Your task to perform on an android device: move a message to another label in the gmail app Image 0: 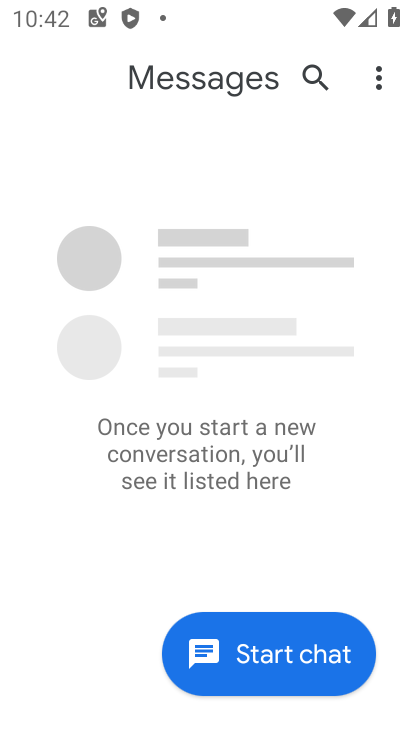
Step 0: press home button
Your task to perform on an android device: move a message to another label in the gmail app Image 1: 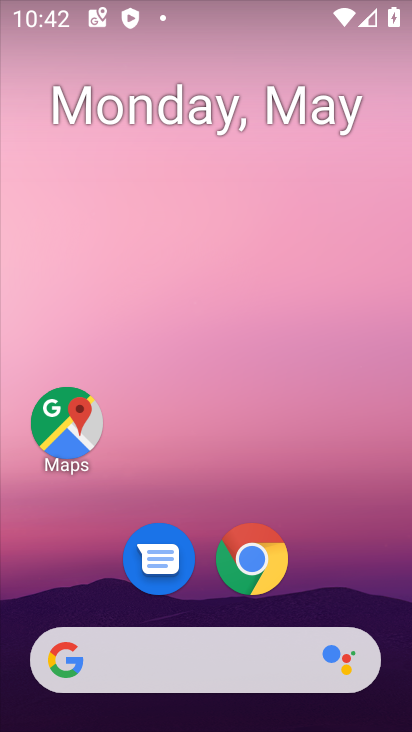
Step 1: drag from (327, 578) to (336, 3)
Your task to perform on an android device: move a message to another label in the gmail app Image 2: 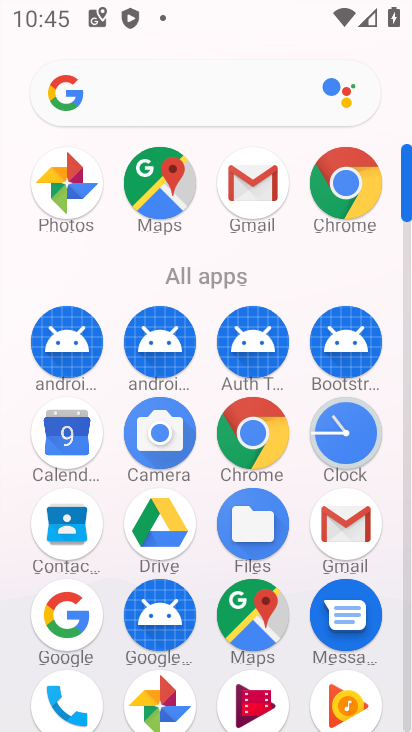
Step 2: click (249, 181)
Your task to perform on an android device: move a message to another label in the gmail app Image 3: 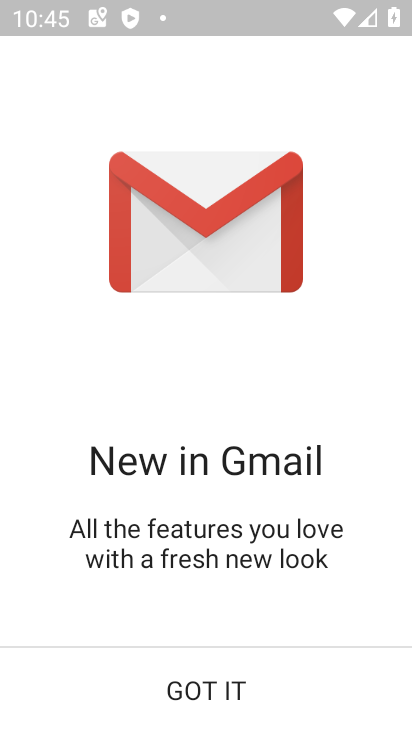
Step 3: click (158, 653)
Your task to perform on an android device: move a message to another label in the gmail app Image 4: 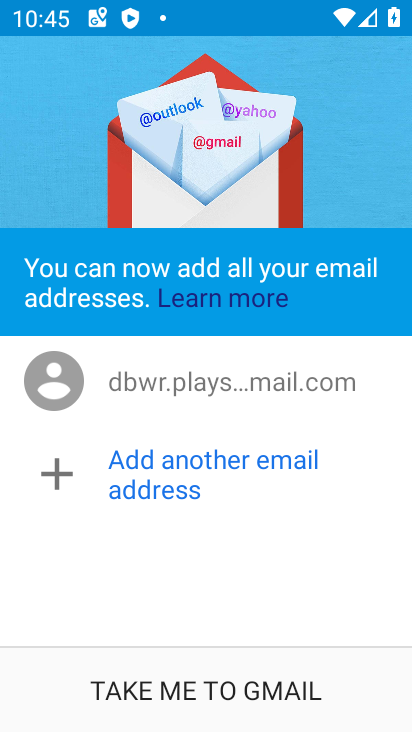
Step 4: click (279, 693)
Your task to perform on an android device: move a message to another label in the gmail app Image 5: 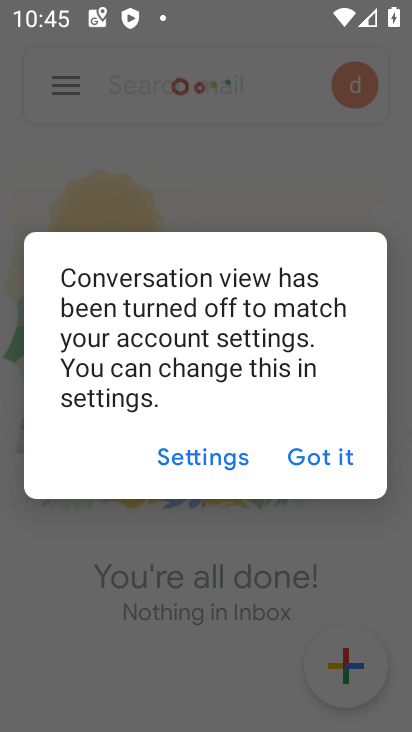
Step 5: click (309, 464)
Your task to perform on an android device: move a message to another label in the gmail app Image 6: 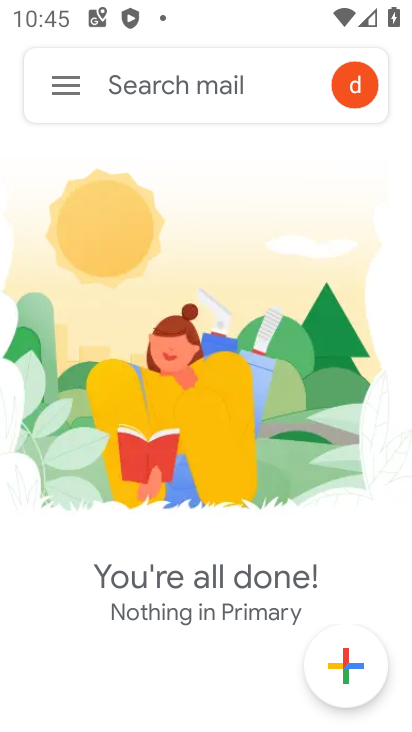
Step 6: task complete